Your task to perform on an android device: Open privacy settings Image 0: 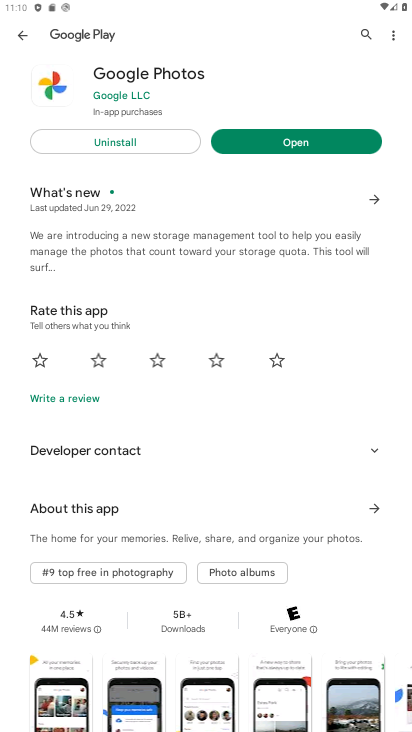
Step 0: press back button
Your task to perform on an android device: Open privacy settings Image 1: 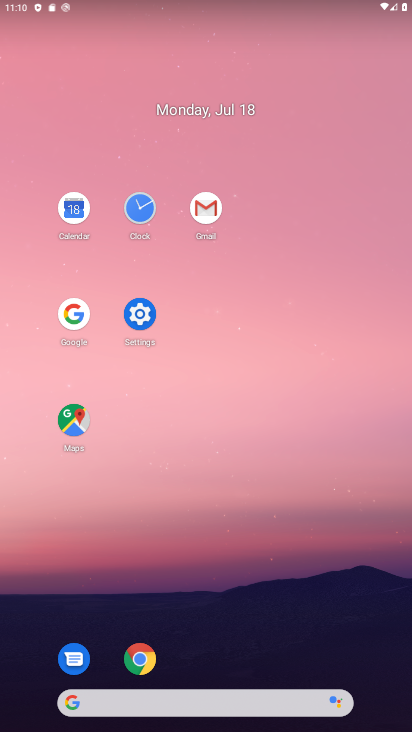
Step 1: click (142, 313)
Your task to perform on an android device: Open privacy settings Image 2: 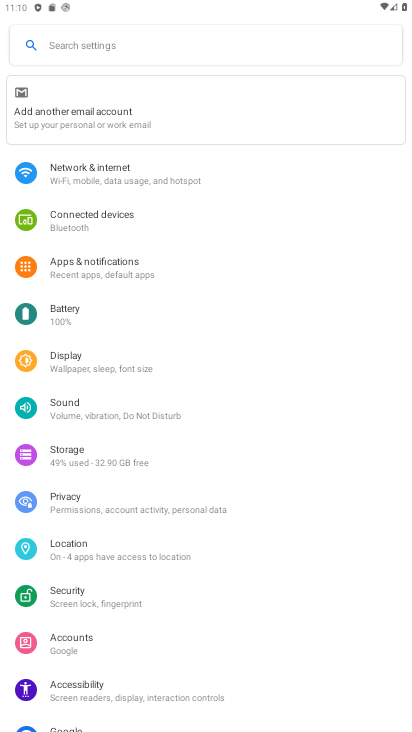
Step 2: click (96, 502)
Your task to perform on an android device: Open privacy settings Image 3: 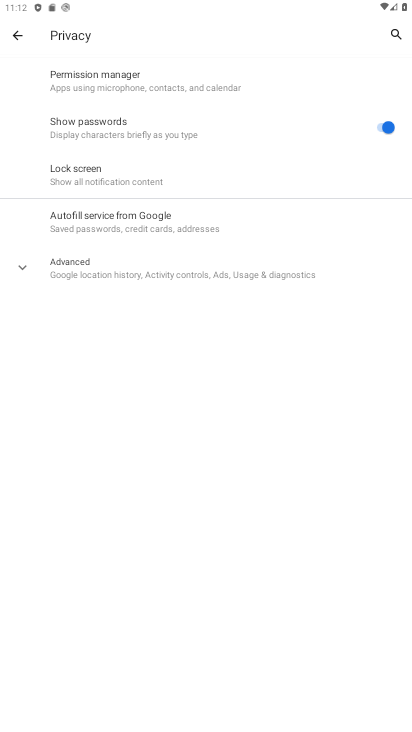
Step 3: task complete